Your task to perform on an android device: open a bookmark in the chrome app Image 0: 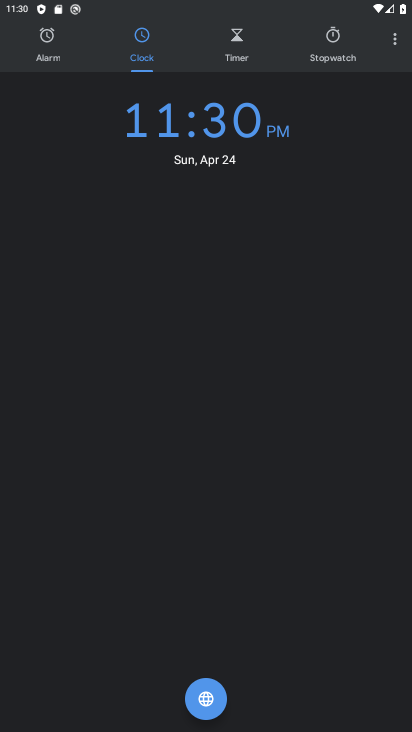
Step 0: press home button
Your task to perform on an android device: open a bookmark in the chrome app Image 1: 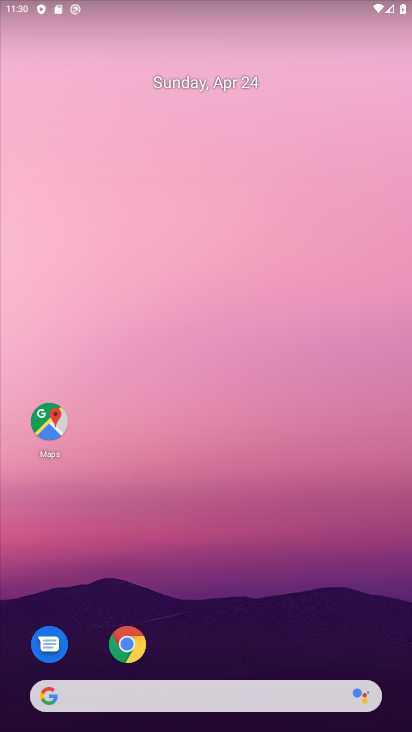
Step 1: drag from (325, 715) to (124, 59)
Your task to perform on an android device: open a bookmark in the chrome app Image 2: 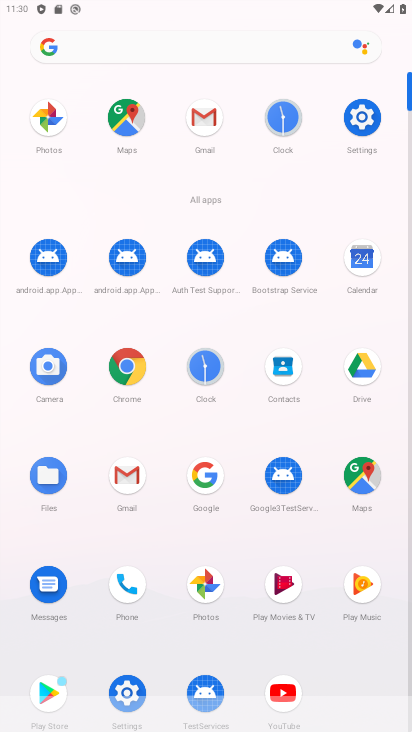
Step 2: drag from (222, 233) to (198, 520)
Your task to perform on an android device: open a bookmark in the chrome app Image 3: 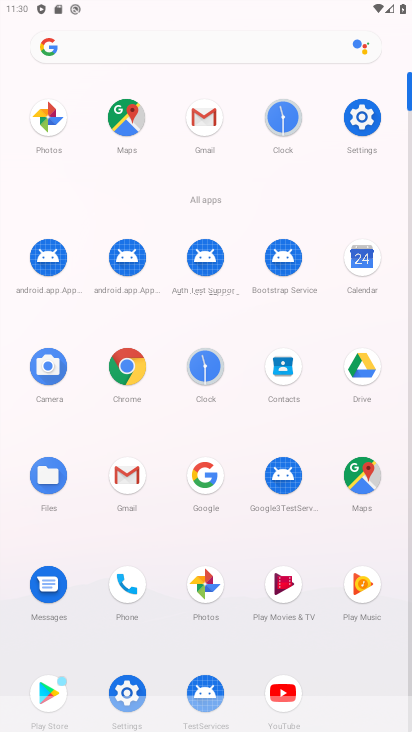
Step 3: drag from (129, 364) to (131, 404)
Your task to perform on an android device: open a bookmark in the chrome app Image 4: 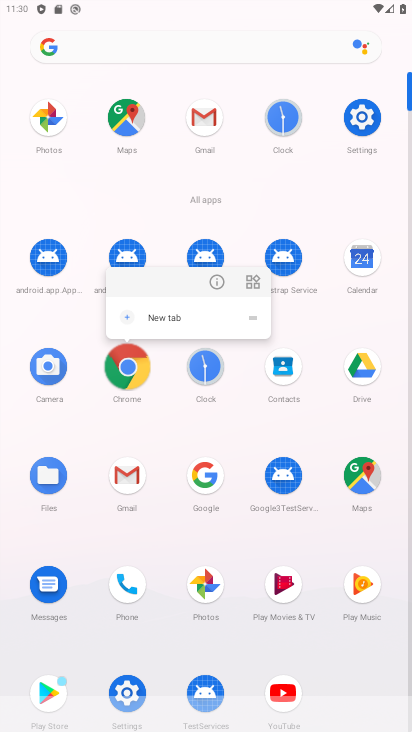
Step 4: click (115, 363)
Your task to perform on an android device: open a bookmark in the chrome app Image 5: 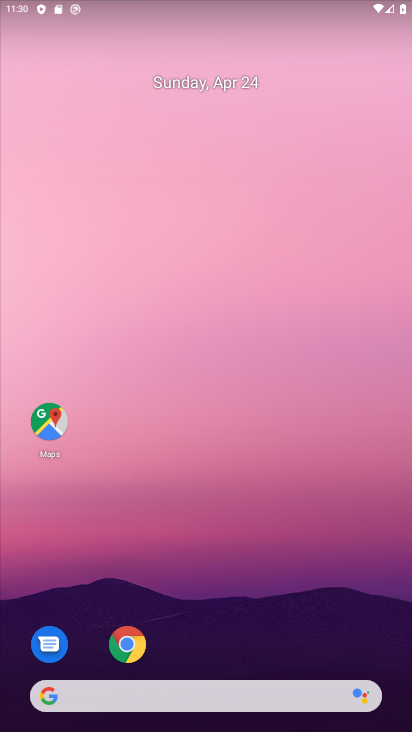
Step 5: drag from (254, 615) to (93, 168)
Your task to perform on an android device: open a bookmark in the chrome app Image 6: 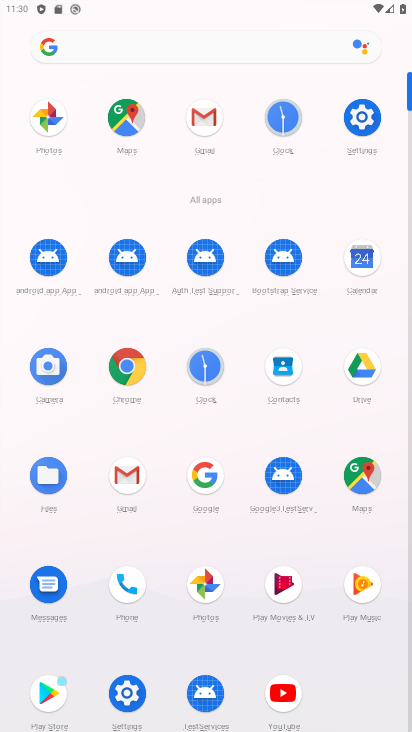
Step 6: click (127, 366)
Your task to perform on an android device: open a bookmark in the chrome app Image 7: 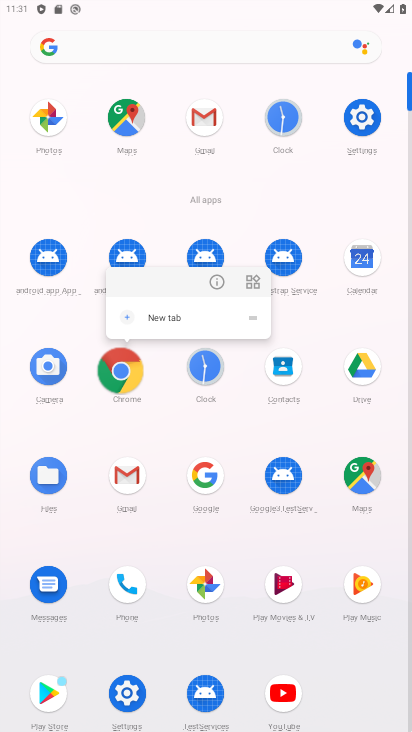
Step 7: click (120, 370)
Your task to perform on an android device: open a bookmark in the chrome app Image 8: 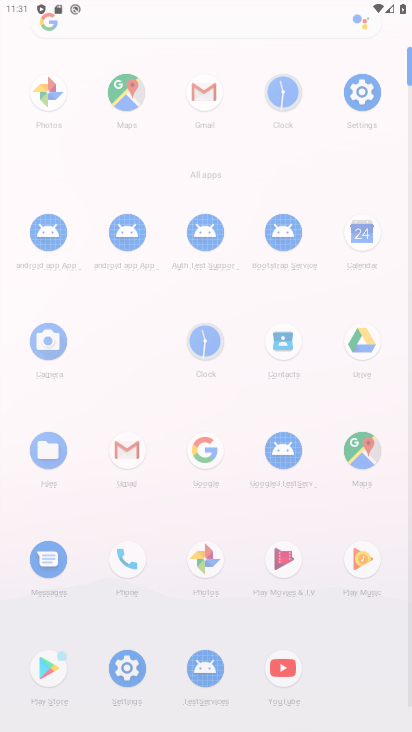
Step 8: click (117, 372)
Your task to perform on an android device: open a bookmark in the chrome app Image 9: 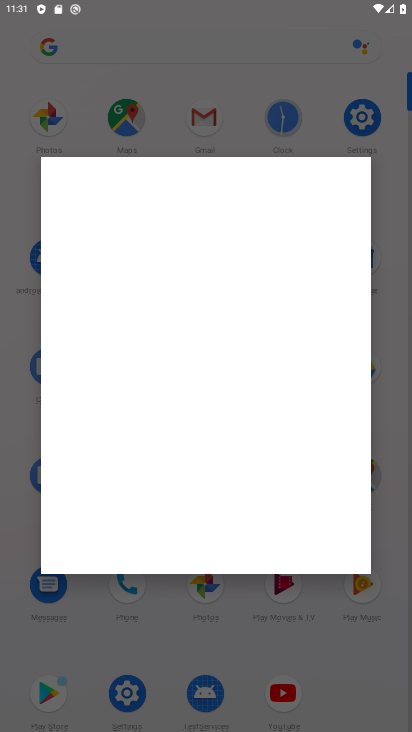
Step 9: click (106, 428)
Your task to perform on an android device: open a bookmark in the chrome app Image 10: 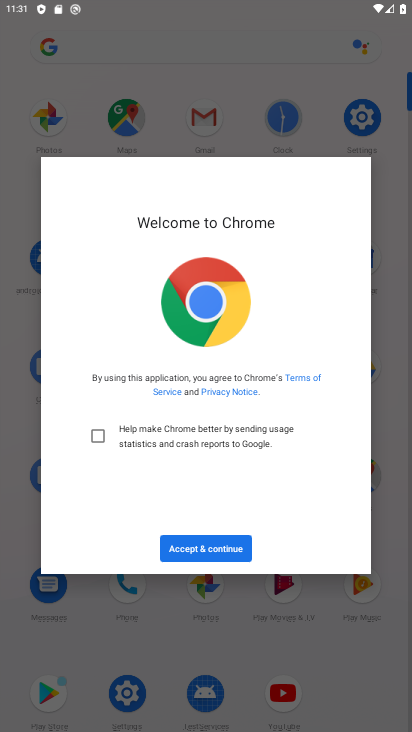
Step 10: click (208, 536)
Your task to perform on an android device: open a bookmark in the chrome app Image 11: 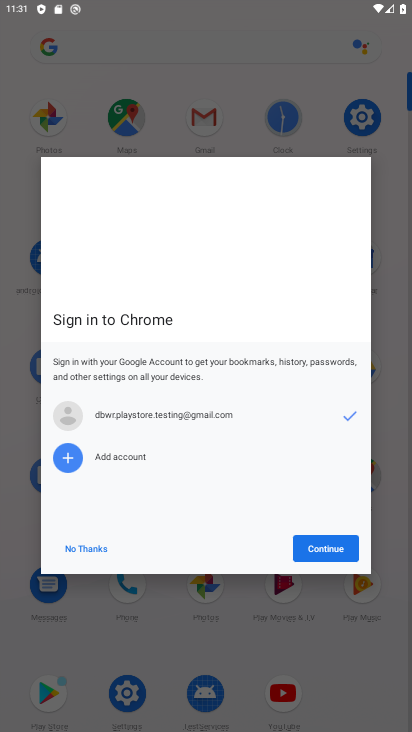
Step 11: click (226, 558)
Your task to perform on an android device: open a bookmark in the chrome app Image 12: 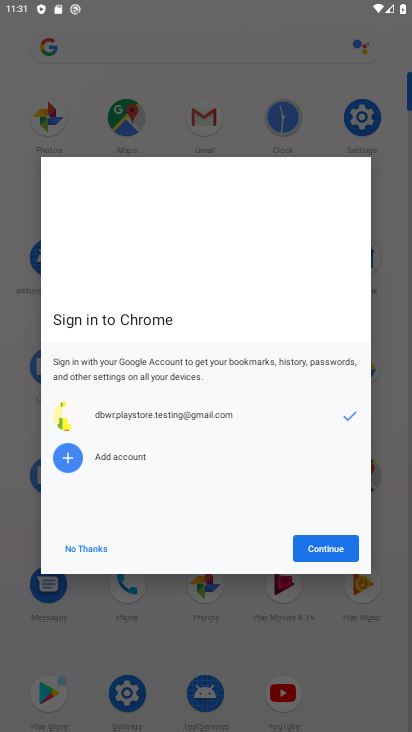
Step 12: click (321, 551)
Your task to perform on an android device: open a bookmark in the chrome app Image 13: 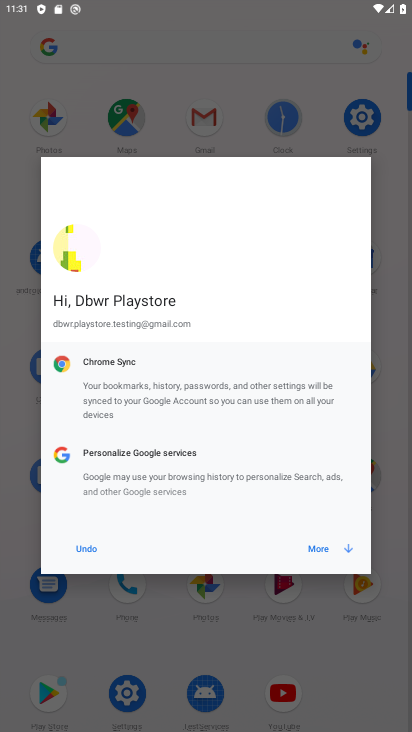
Step 13: click (328, 546)
Your task to perform on an android device: open a bookmark in the chrome app Image 14: 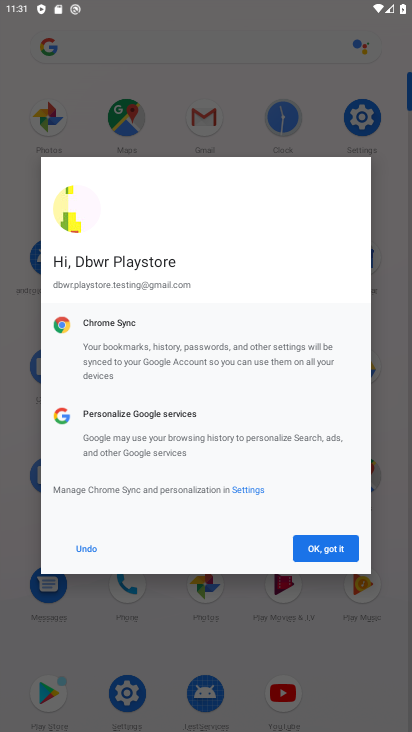
Step 14: click (328, 543)
Your task to perform on an android device: open a bookmark in the chrome app Image 15: 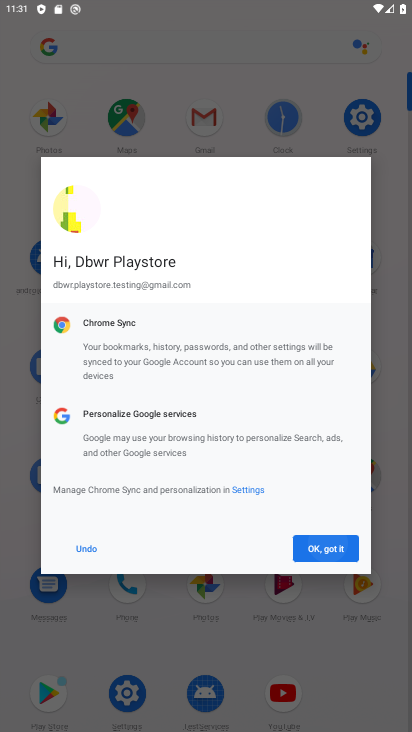
Step 15: click (328, 543)
Your task to perform on an android device: open a bookmark in the chrome app Image 16: 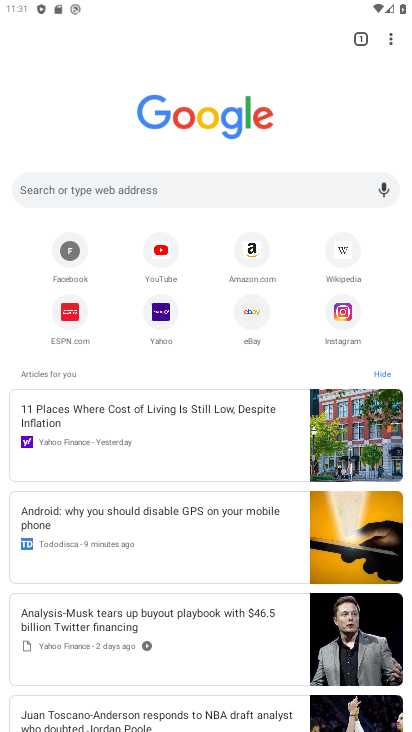
Step 16: drag from (382, 35) to (238, 328)
Your task to perform on an android device: open a bookmark in the chrome app Image 17: 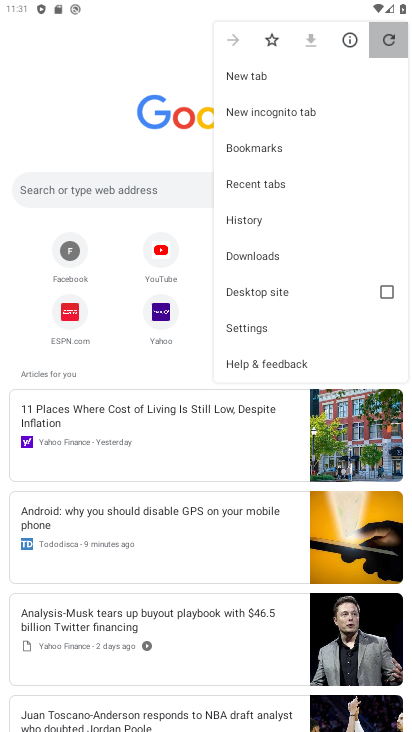
Step 17: click (238, 328)
Your task to perform on an android device: open a bookmark in the chrome app Image 18: 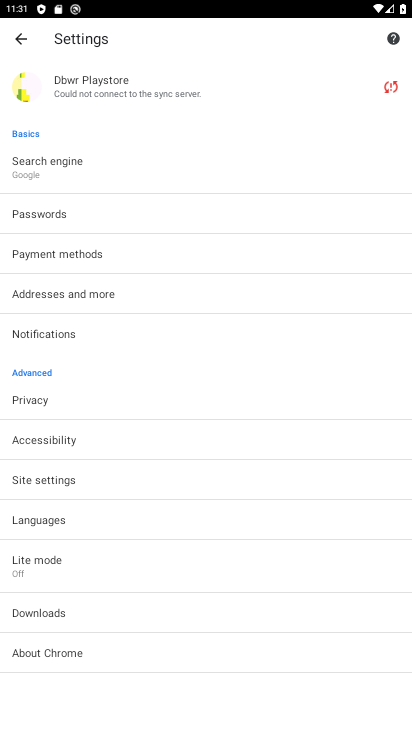
Step 18: click (21, 34)
Your task to perform on an android device: open a bookmark in the chrome app Image 19: 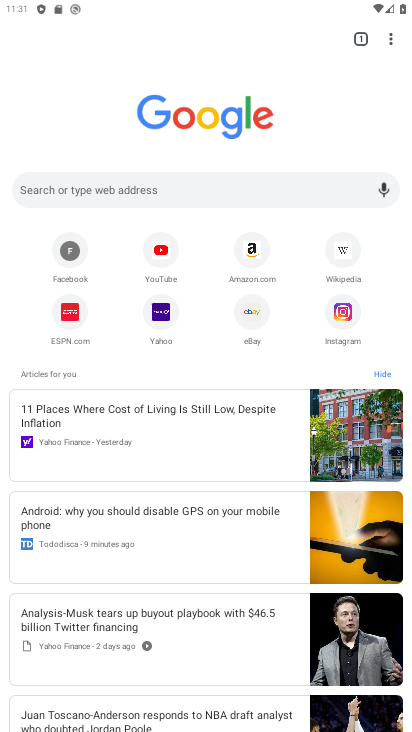
Step 19: task complete